Your task to perform on an android device: install app "Fetch Rewards" Image 0: 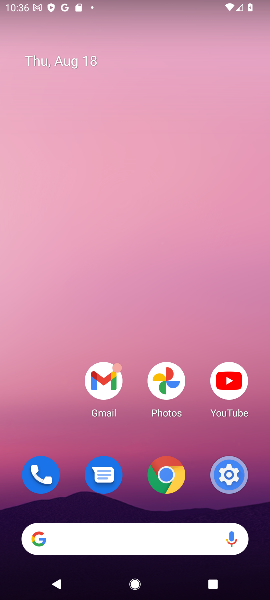
Step 0: press home button
Your task to perform on an android device: install app "Fetch Rewards" Image 1: 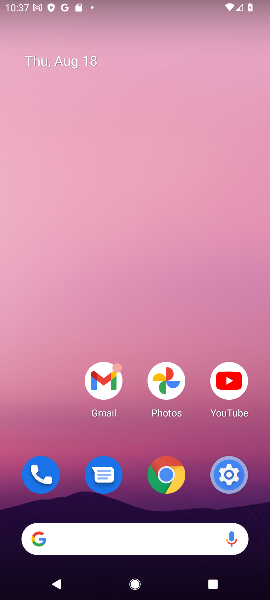
Step 1: drag from (137, 449) to (160, 34)
Your task to perform on an android device: install app "Fetch Rewards" Image 2: 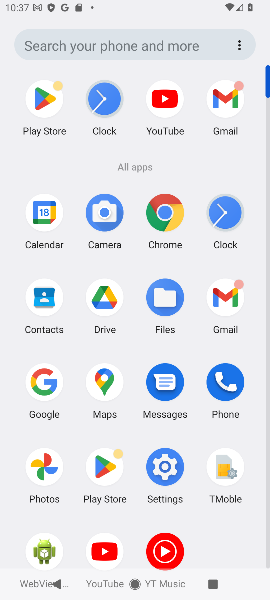
Step 2: click (39, 95)
Your task to perform on an android device: install app "Fetch Rewards" Image 3: 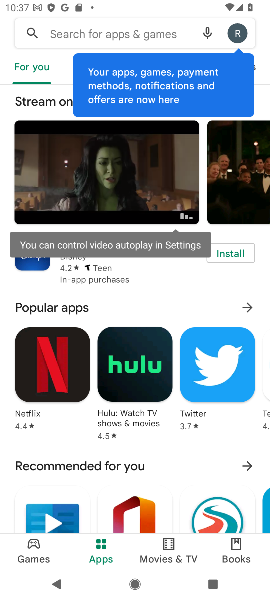
Step 3: click (77, 28)
Your task to perform on an android device: install app "Fetch Rewards" Image 4: 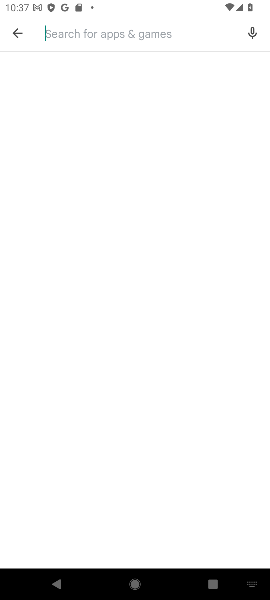
Step 4: type "Fetch Rewards"
Your task to perform on an android device: install app "Fetch Rewards" Image 5: 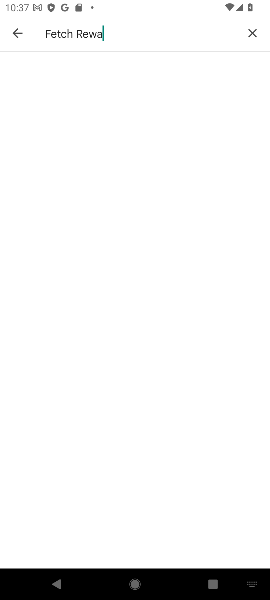
Step 5: type ""
Your task to perform on an android device: install app "Fetch Rewards" Image 6: 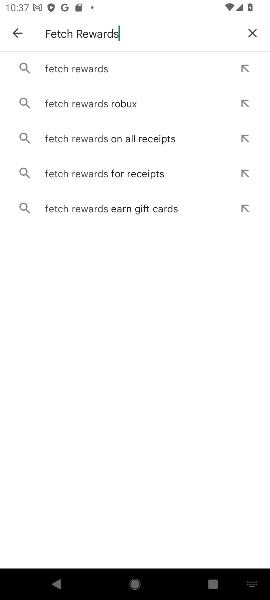
Step 6: click (99, 63)
Your task to perform on an android device: install app "Fetch Rewards" Image 7: 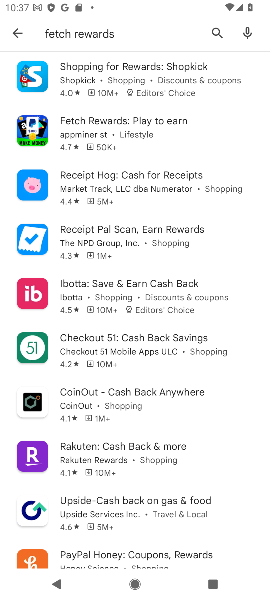
Step 7: click (79, 123)
Your task to perform on an android device: install app "Fetch Rewards" Image 8: 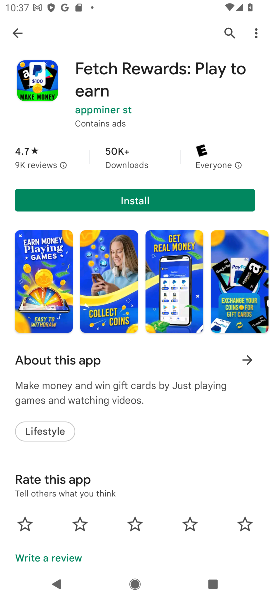
Step 8: click (135, 198)
Your task to perform on an android device: install app "Fetch Rewards" Image 9: 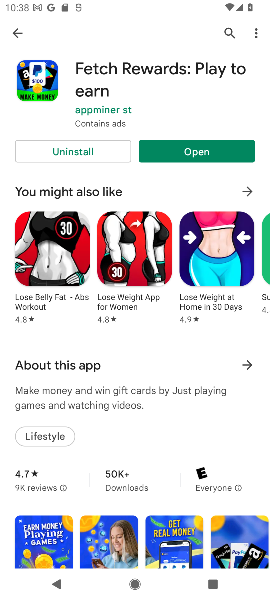
Step 9: click (200, 148)
Your task to perform on an android device: install app "Fetch Rewards" Image 10: 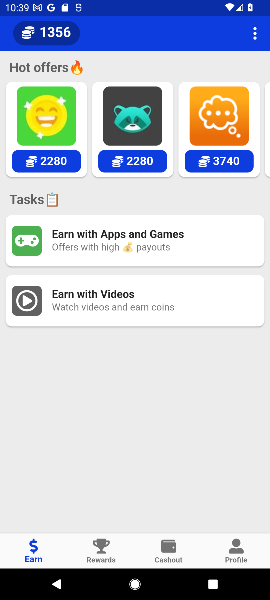
Step 10: task complete